Your task to perform on an android device: change the clock display to analog Image 0: 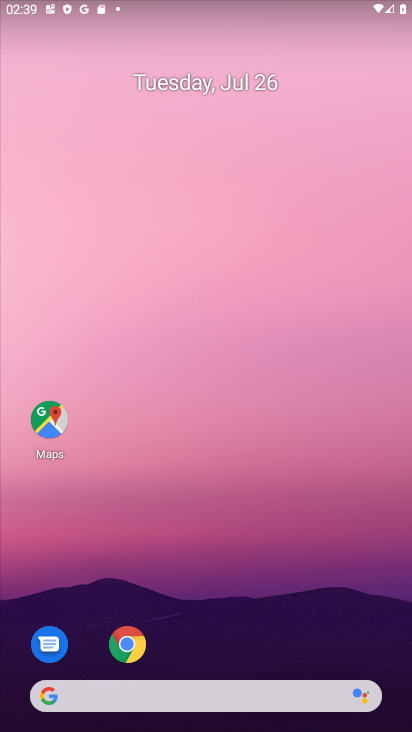
Step 0: drag from (199, 667) to (136, 129)
Your task to perform on an android device: change the clock display to analog Image 1: 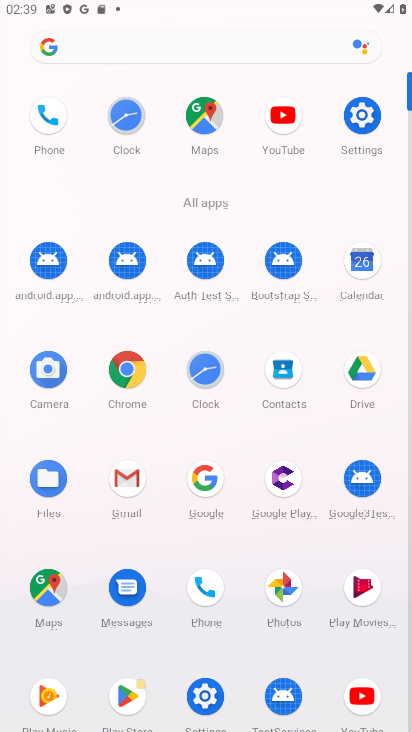
Step 1: click (219, 382)
Your task to perform on an android device: change the clock display to analog Image 2: 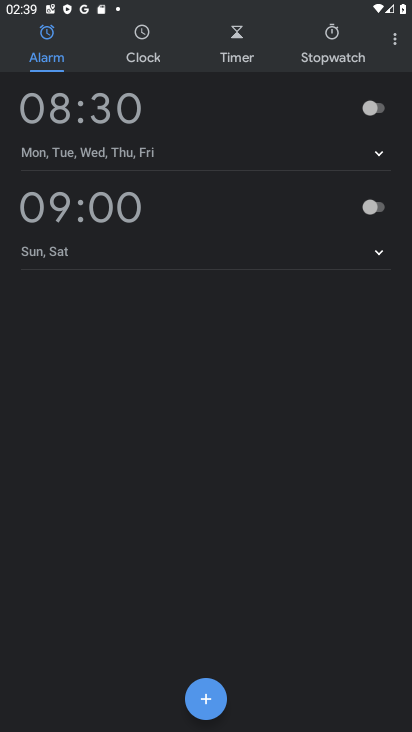
Step 2: click (395, 37)
Your task to perform on an android device: change the clock display to analog Image 3: 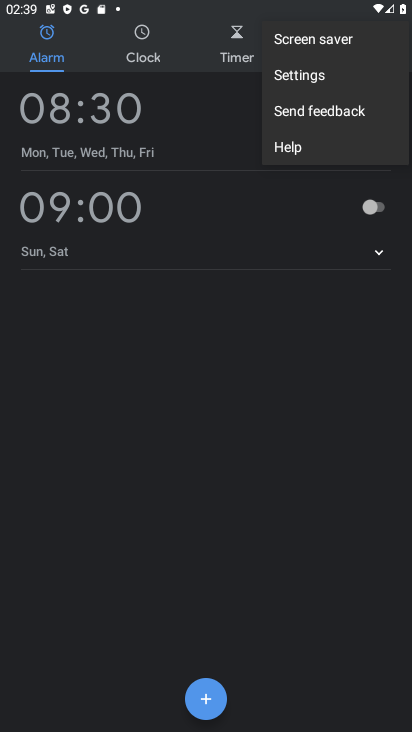
Step 3: click (274, 75)
Your task to perform on an android device: change the clock display to analog Image 4: 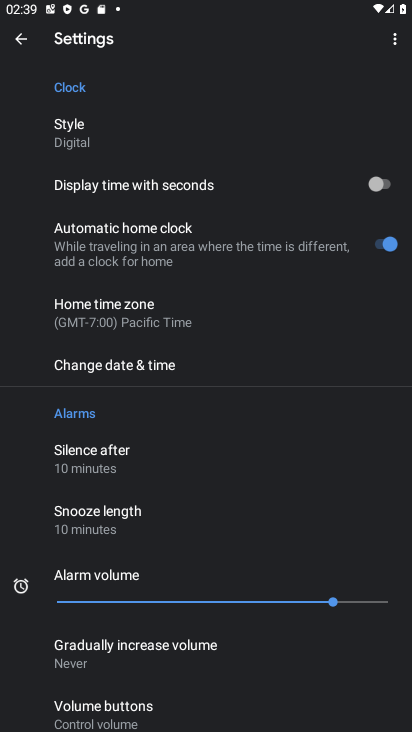
Step 4: click (63, 141)
Your task to perform on an android device: change the clock display to analog Image 5: 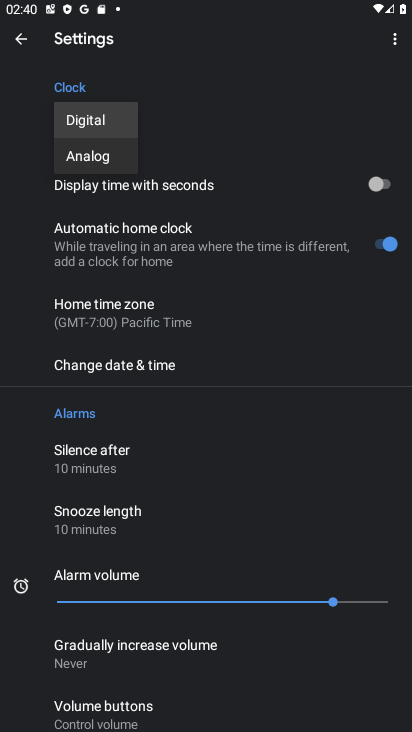
Step 5: click (98, 162)
Your task to perform on an android device: change the clock display to analog Image 6: 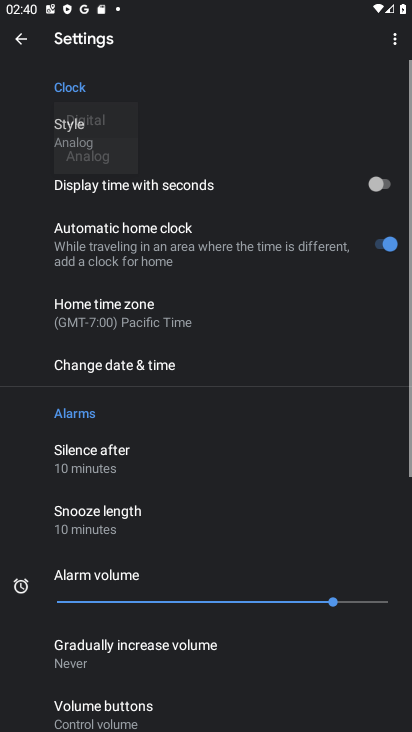
Step 6: task complete